Your task to perform on an android device: Search for the new nike air max 270 on Nike.com Image 0: 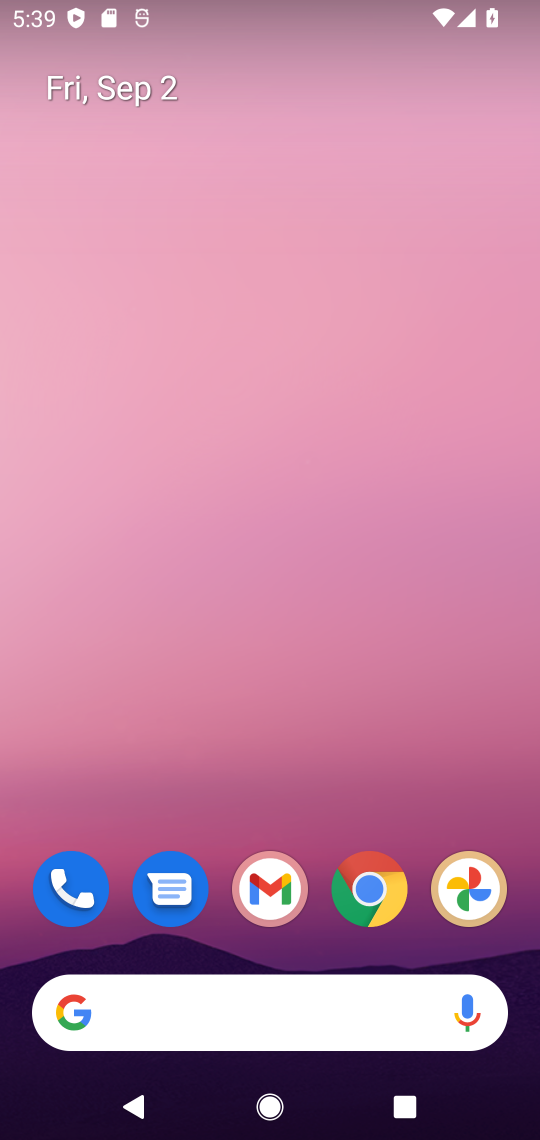
Step 0: click (316, 1024)
Your task to perform on an android device: Search for the new nike air max 270 on Nike.com Image 1: 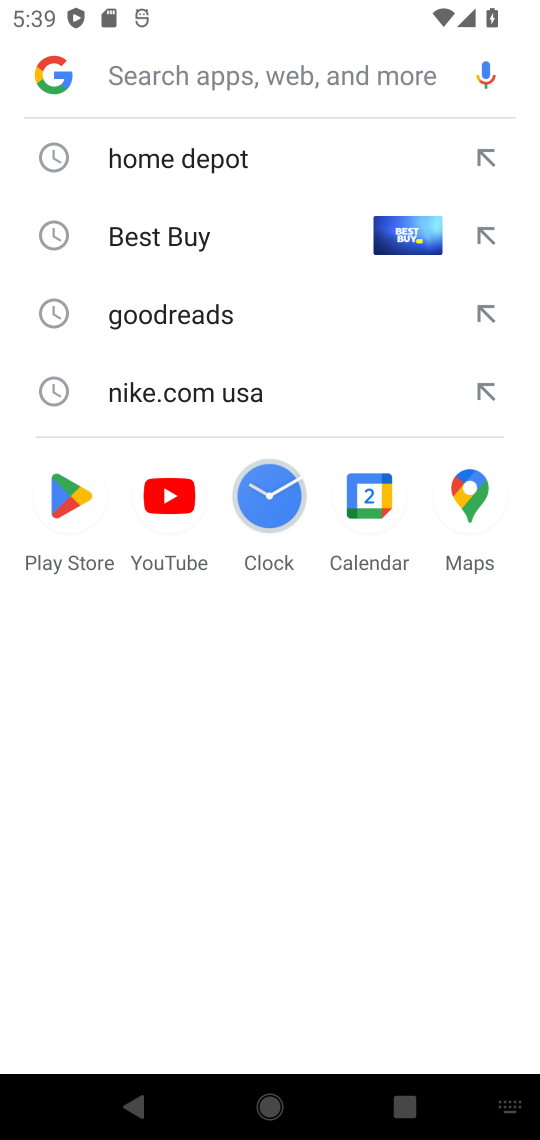
Step 1: type "Nike.com"
Your task to perform on an android device: Search for the new nike air max 270 on Nike.com Image 2: 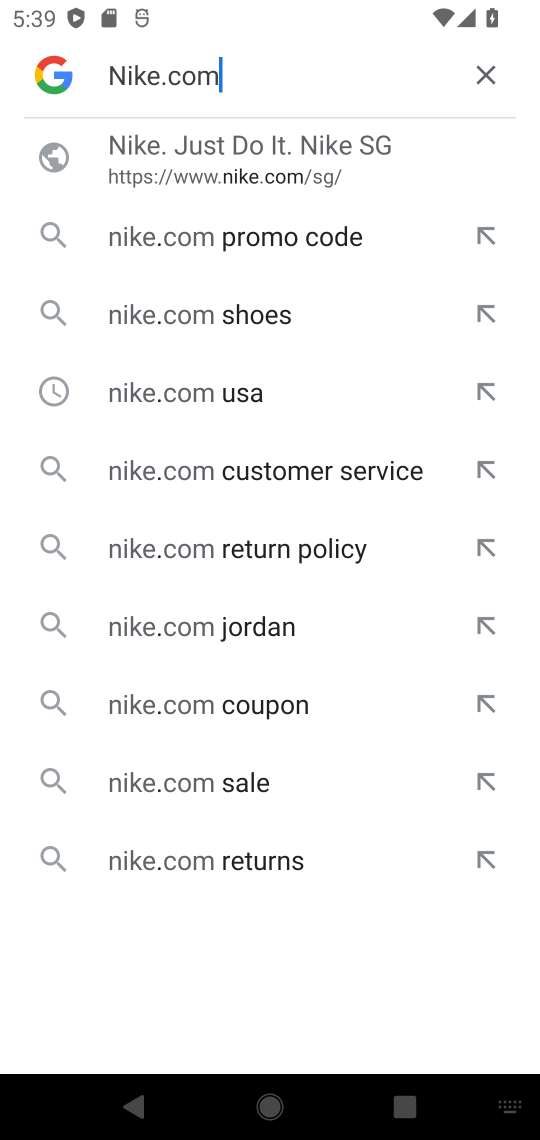
Step 2: click (267, 385)
Your task to perform on an android device: Search for the new nike air max 270 on Nike.com Image 3: 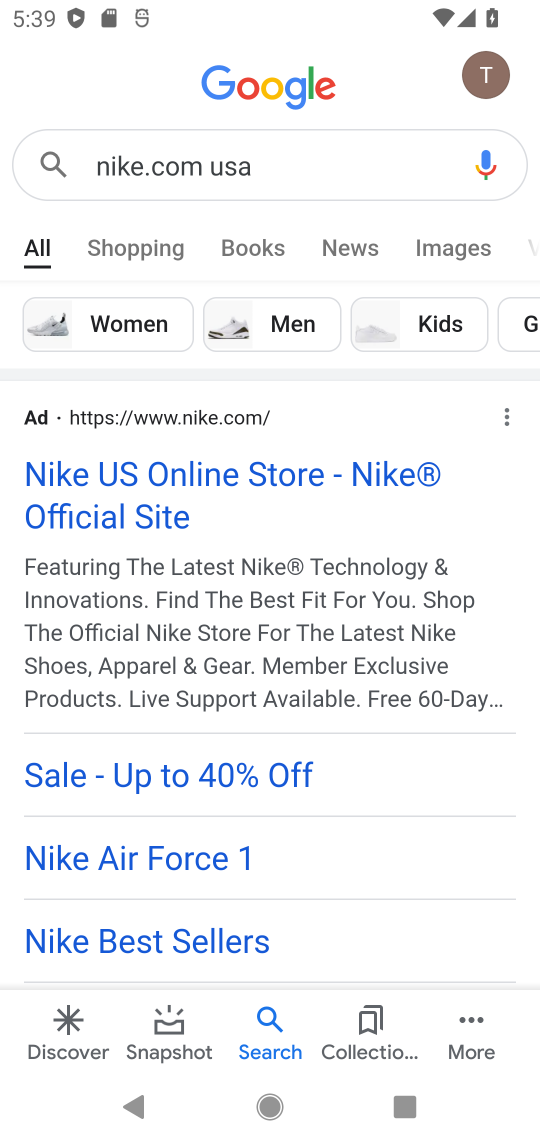
Step 3: drag from (316, 698) to (334, 178)
Your task to perform on an android device: Search for the new nike air max 270 on Nike.com Image 4: 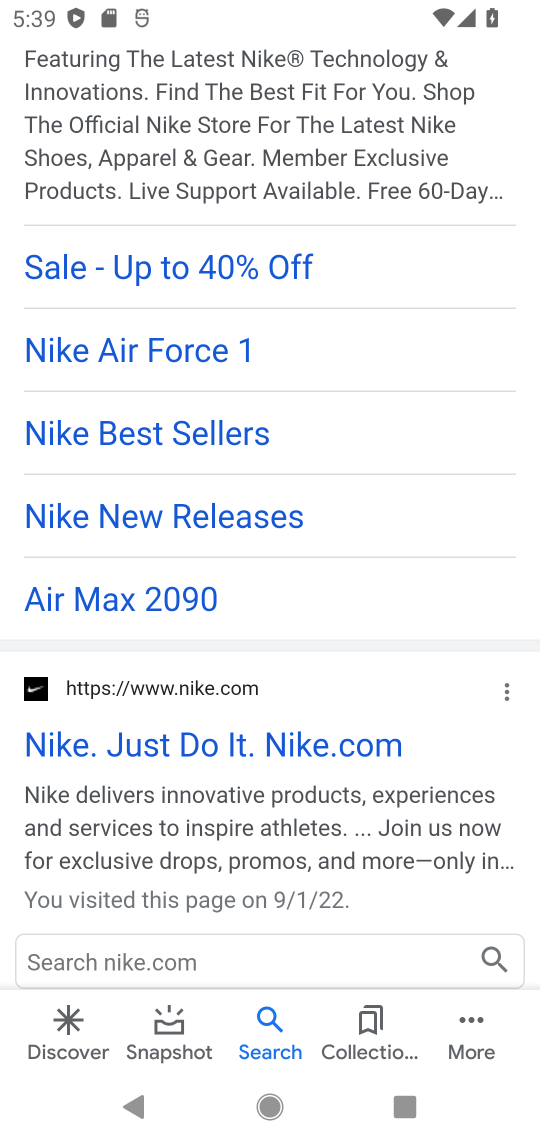
Step 4: click (307, 737)
Your task to perform on an android device: Search for the new nike air max 270 on Nike.com Image 5: 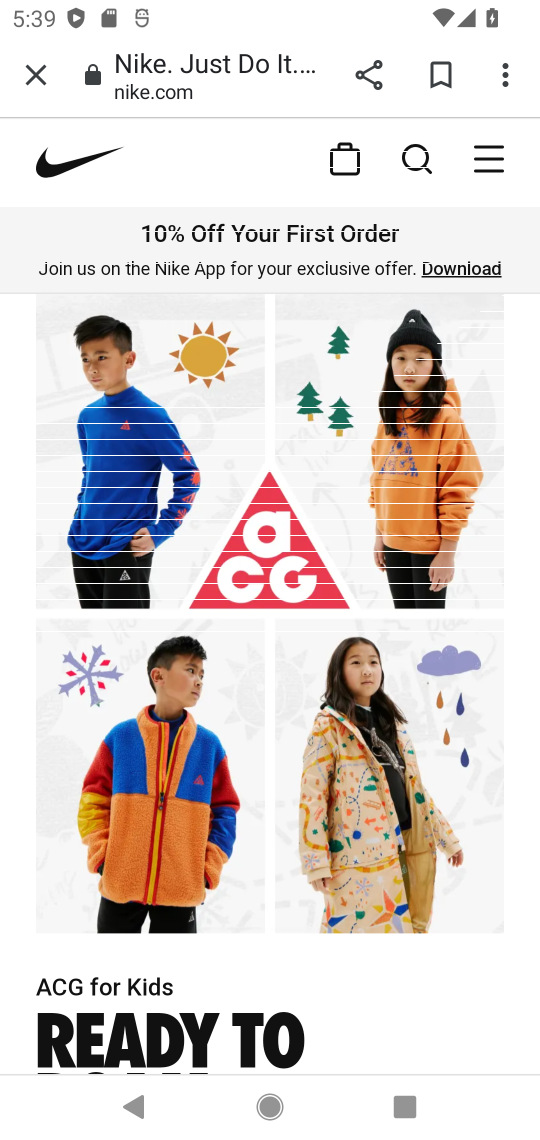
Step 5: click (419, 158)
Your task to perform on an android device: Search for the new nike air max 270 on Nike.com Image 6: 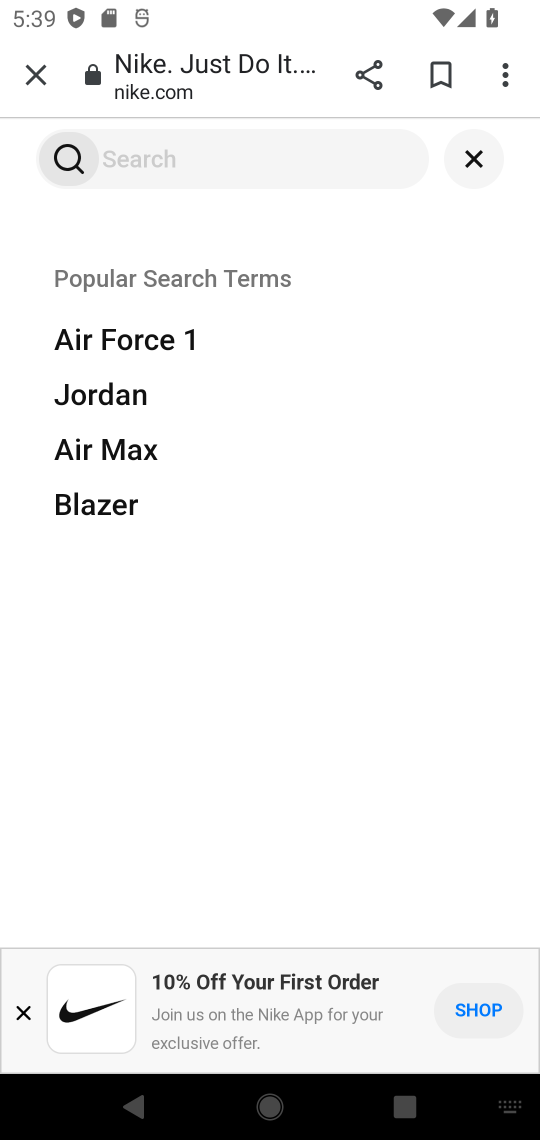
Step 6: drag from (241, 1111) to (412, 1133)
Your task to perform on an android device: Search for the new nike air max 270 on Nike.com Image 7: 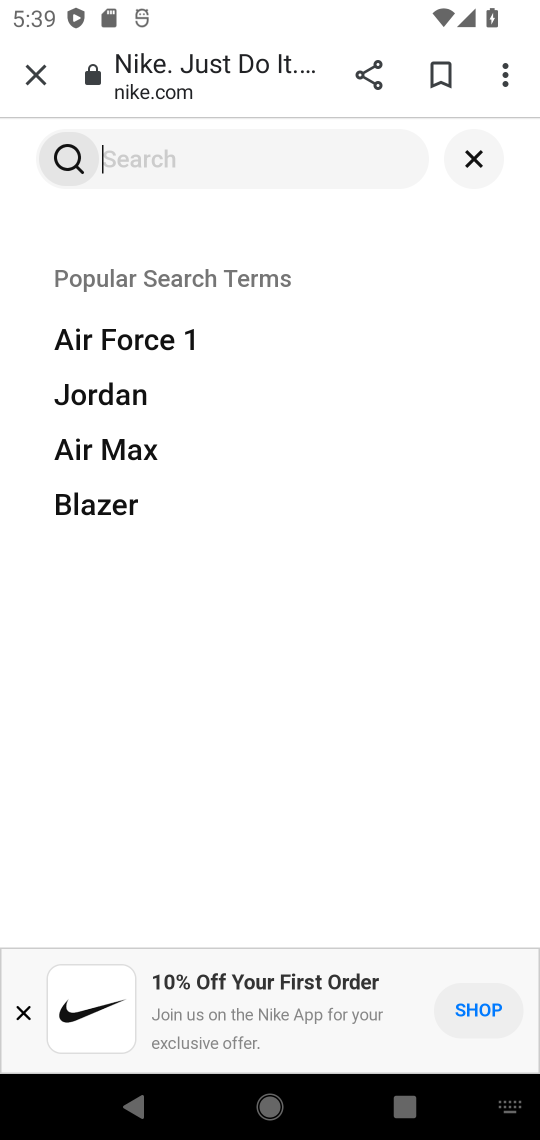
Step 7: type "nike air max 270"
Your task to perform on an android device: Search for the new nike air max 270 on Nike.com Image 8: 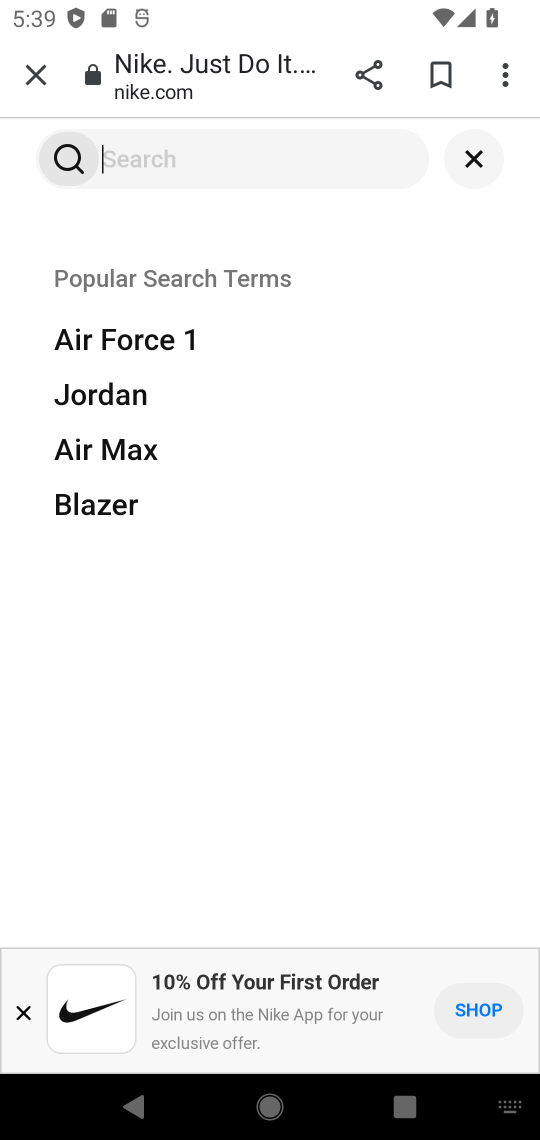
Step 8: click (479, 574)
Your task to perform on an android device: Search for the new nike air max 270 on Nike.com Image 9: 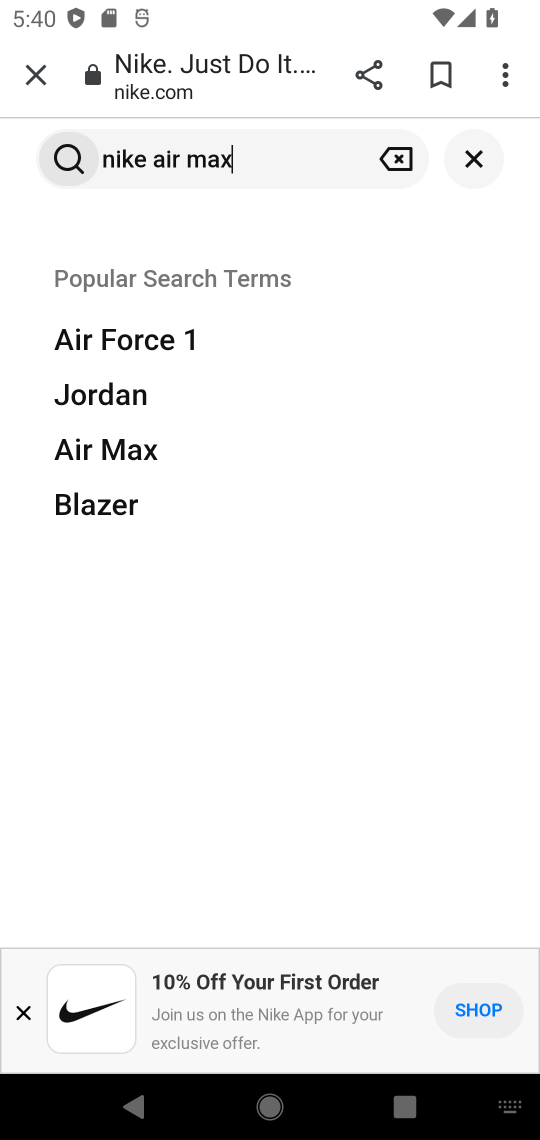
Step 9: type ""
Your task to perform on an android device: Search for the new nike air max 270 on Nike.com Image 10: 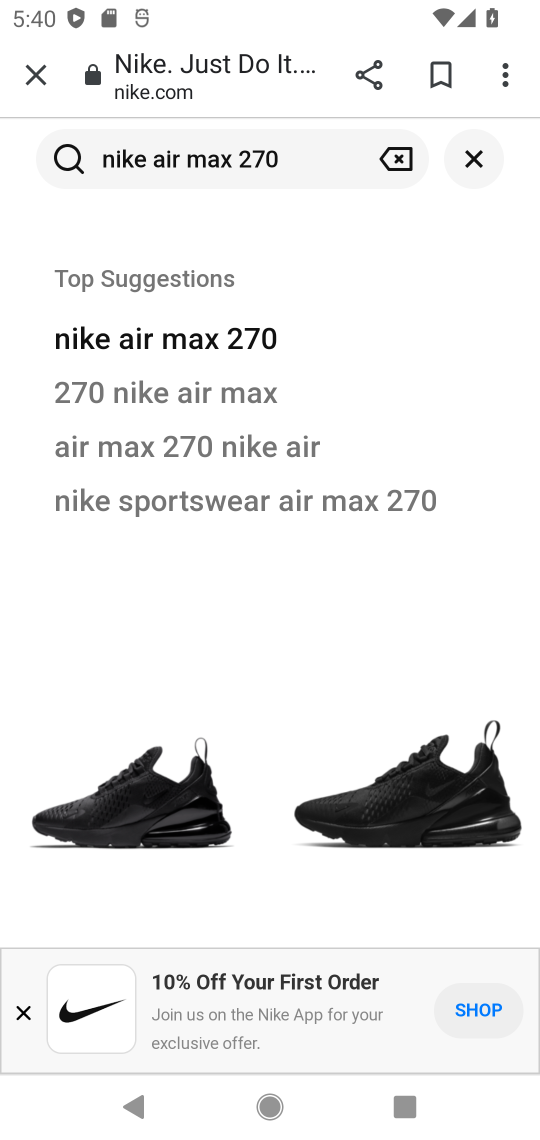
Step 10: click (257, 343)
Your task to perform on an android device: Search for the new nike air max 270 on Nike.com Image 11: 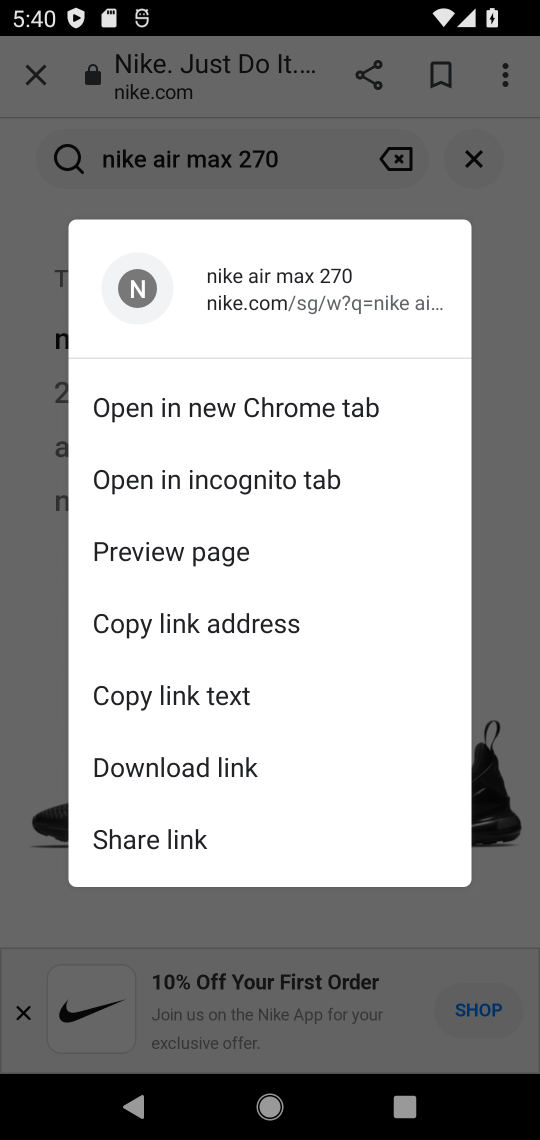
Step 11: click (485, 244)
Your task to perform on an android device: Search for the new nike air max 270 on Nike.com Image 12: 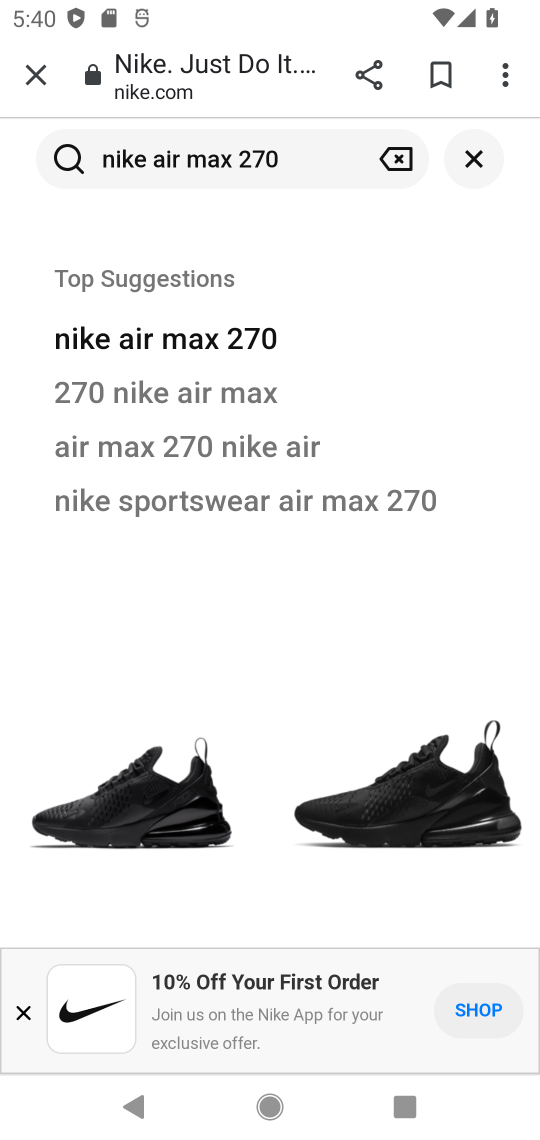
Step 12: click (171, 342)
Your task to perform on an android device: Search for the new nike air max 270 on Nike.com Image 13: 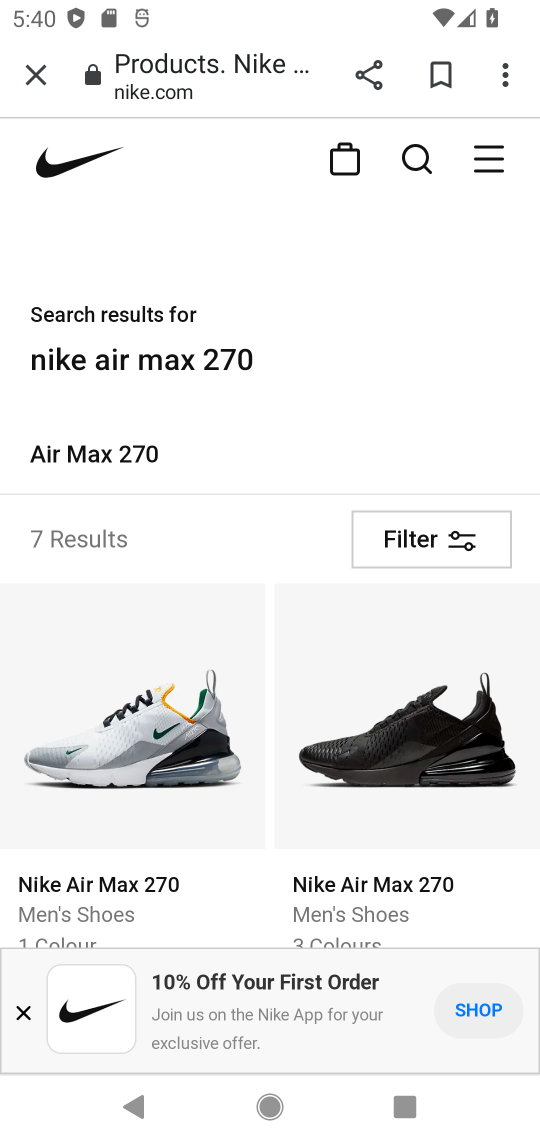
Step 13: drag from (266, 698) to (352, 373)
Your task to perform on an android device: Search for the new nike air max 270 on Nike.com Image 14: 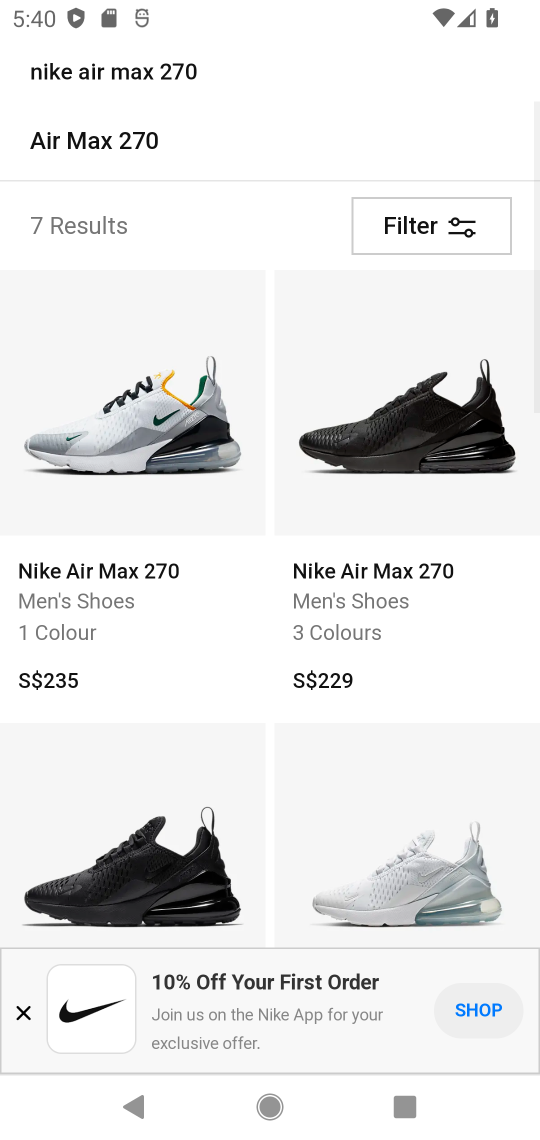
Step 14: click (354, 414)
Your task to perform on an android device: Search for the new nike air max 270 on Nike.com Image 15: 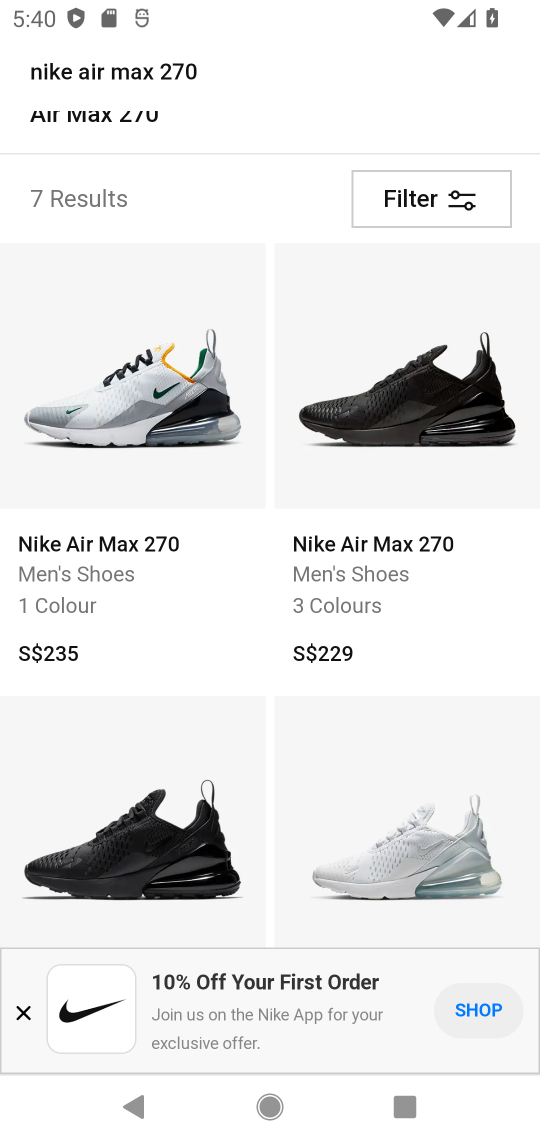
Step 15: task complete